Your task to perform on an android device: find photos in the google photos app Image 0: 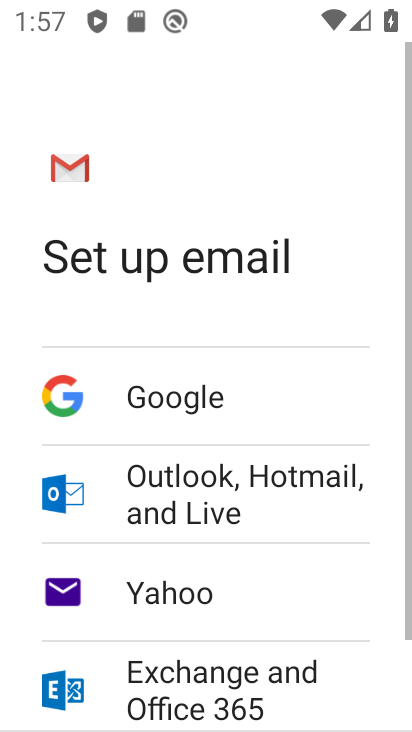
Step 0: press back button
Your task to perform on an android device: find photos in the google photos app Image 1: 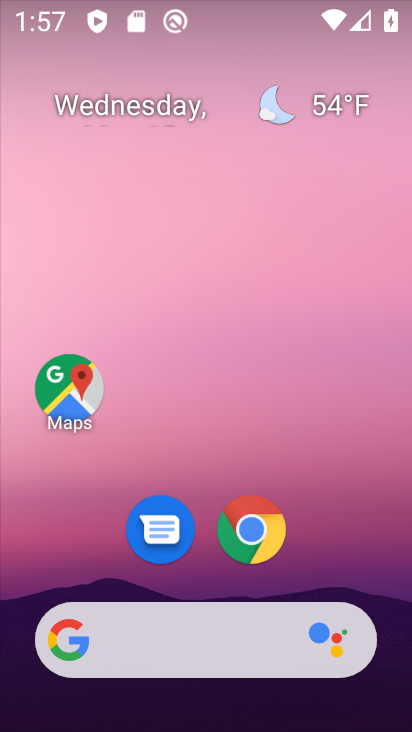
Step 1: drag from (222, 398) to (301, 34)
Your task to perform on an android device: find photos in the google photos app Image 2: 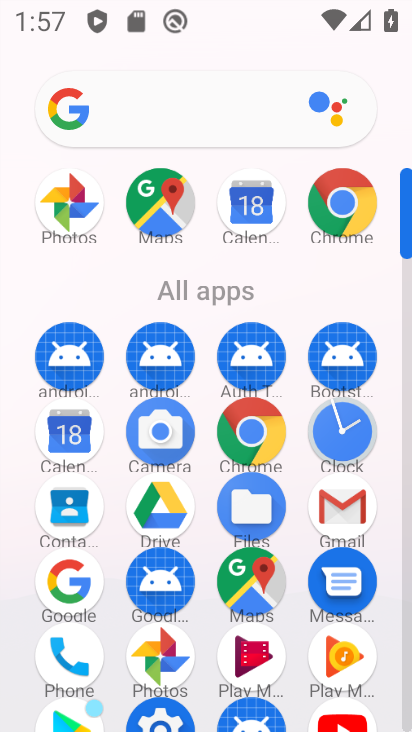
Step 2: drag from (213, 593) to (278, 151)
Your task to perform on an android device: find photos in the google photos app Image 3: 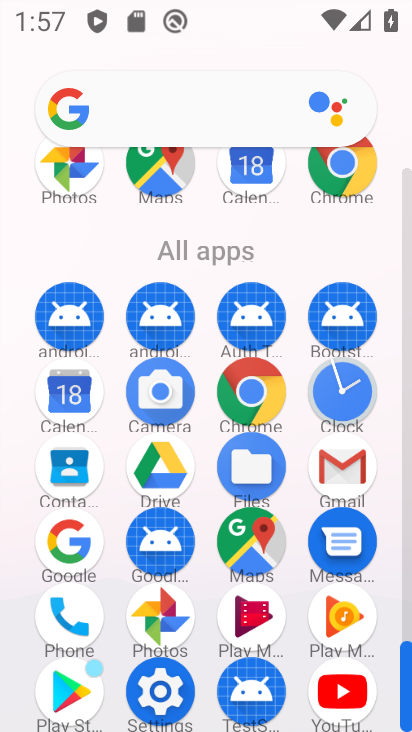
Step 3: click (166, 618)
Your task to perform on an android device: find photos in the google photos app Image 4: 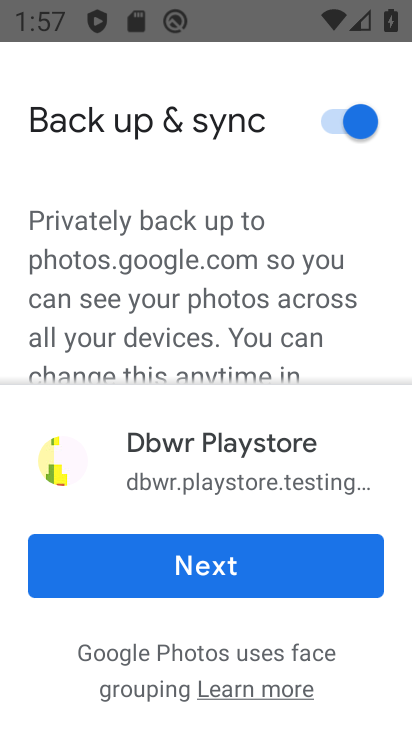
Step 4: click (182, 580)
Your task to perform on an android device: find photos in the google photos app Image 5: 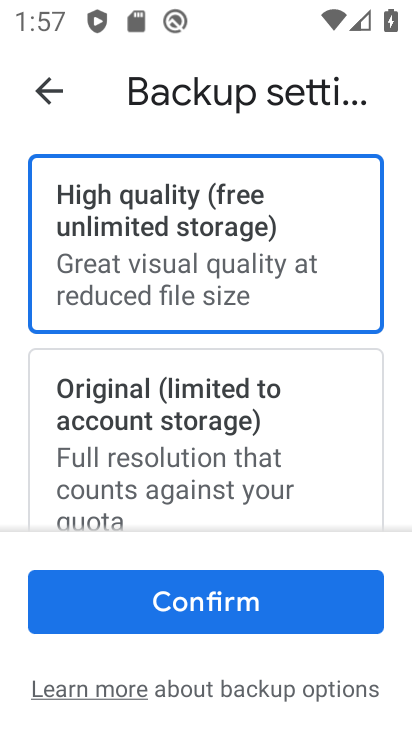
Step 5: click (182, 588)
Your task to perform on an android device: find photos in the google photos app Image 6: 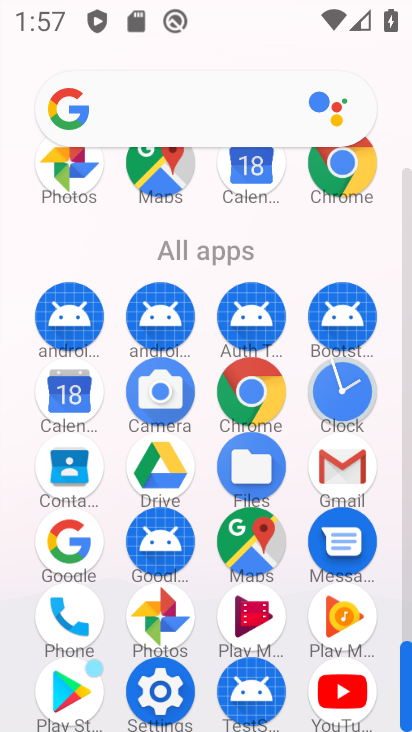
Step 6: click (163, 579)
Your task to perform on an android device: find photos in the google photos app Image 7: 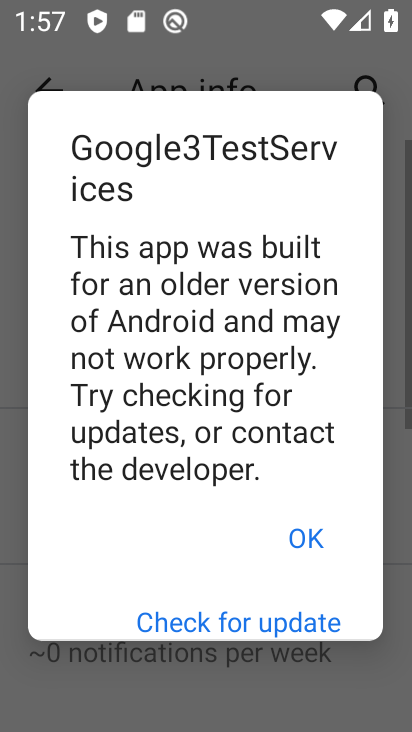
Step 7: click (308, 536)
Your task to perform on an android device: find photos in the google photos app Image 8: 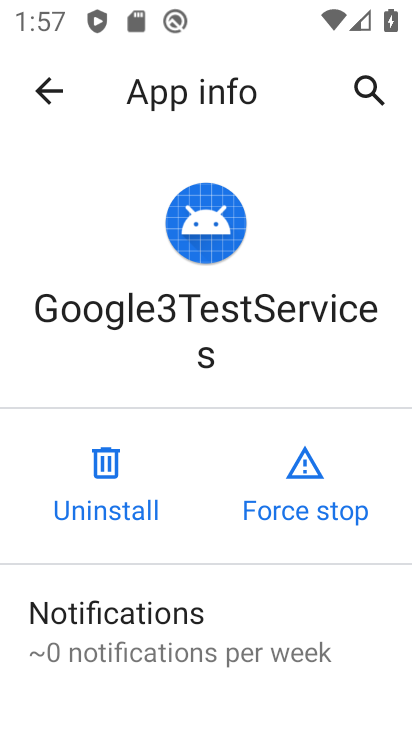
Step 8: click (43, 84)
Your task to perform on an android device: find photos in the google photos app Image 9: 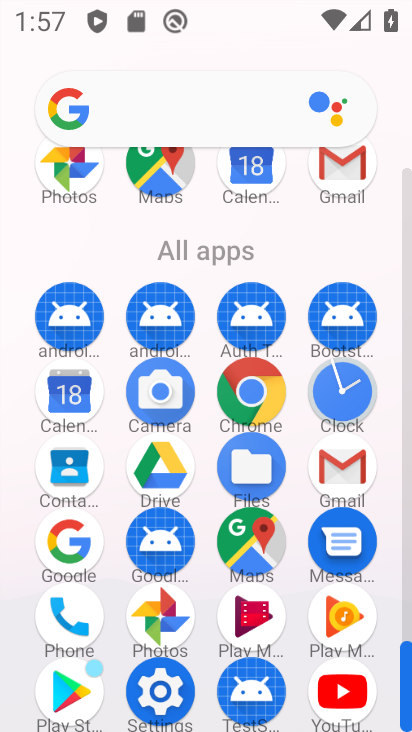
Step 9: click (166, 621)
Your task to perform on an android device: find photos in the google photos app Image 10: 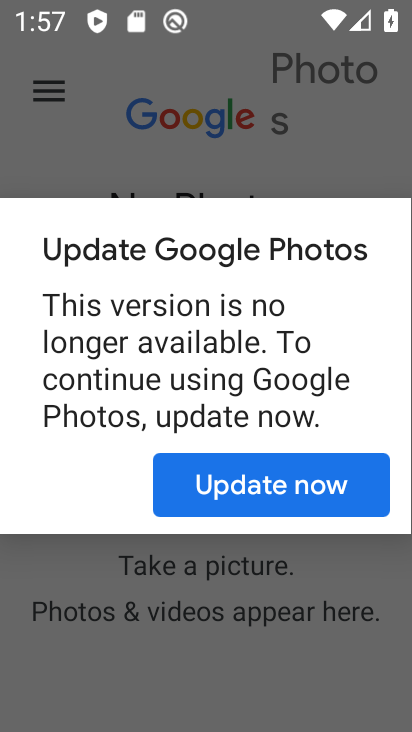
Step 10: click (235, 497)
Your task to perform on an android device: find photos in the google photos app Image 11: 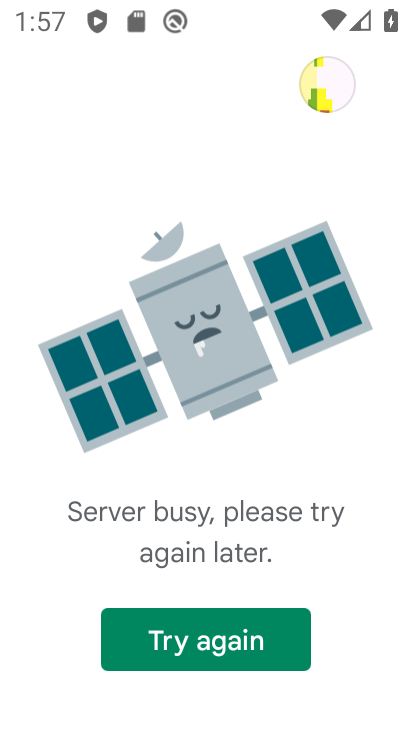
Step 11: click (220, 642)
Your task to perform on an android device: find photos in the google photos app Image 12: 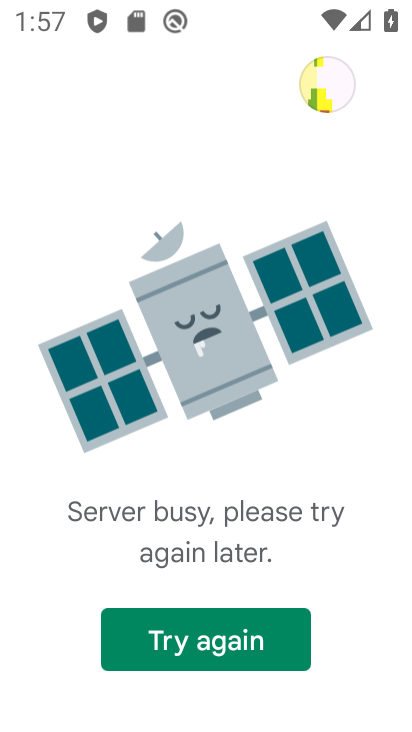
Step 12: task complete